Your task to perform on an android device: Search for vegetarian restaurants on Maps Image 0: 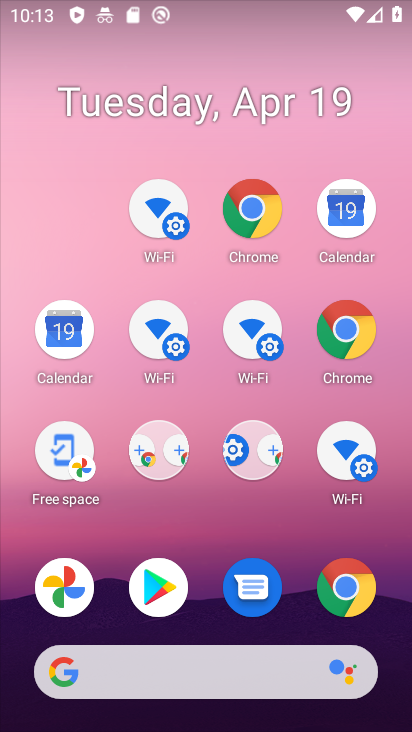
Step 0: drag from (259, 592) to (168, 133)
Your task to perform on an android device: Search for vegetarian restaurants on Maps Image 1: 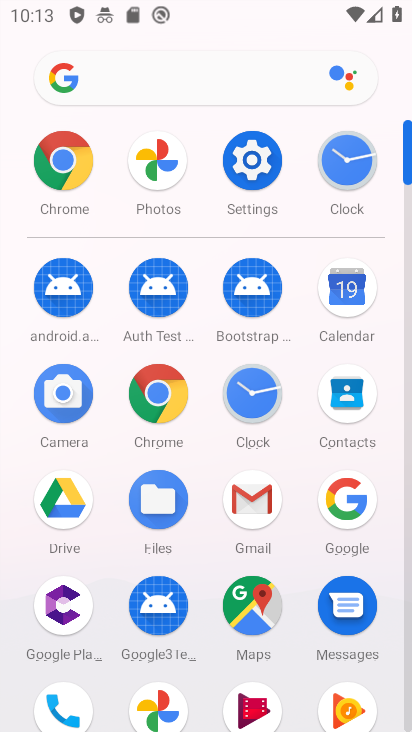
Step 1: click (262, 601)
Your task to perform on an android device: Search for vegetarian restaurants on Maps Image 2: 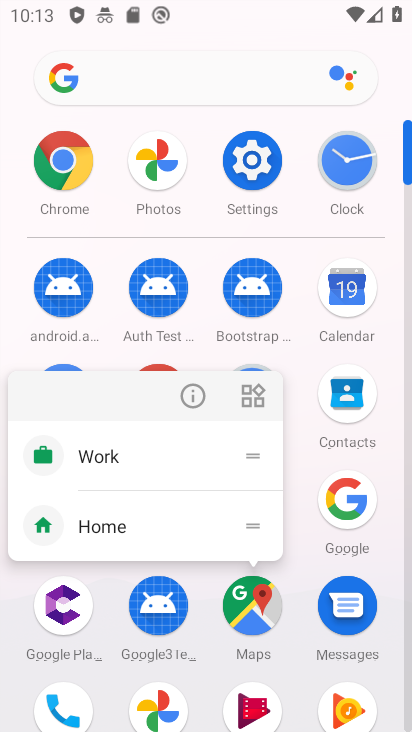
Step 2: click (265, 597)
Your task to perform on an android device: Search for vegetarian restaurants on Maps Image 3: 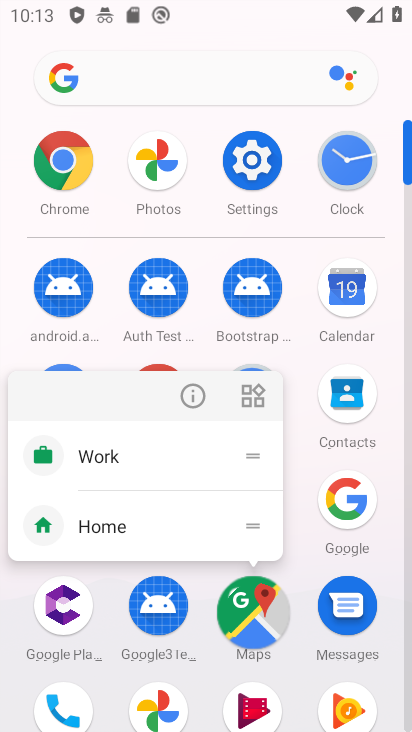
Step 3: click (266, 603)
Your task to perform on an android device: Search for vegetarian restaurants on Maps Image 4: 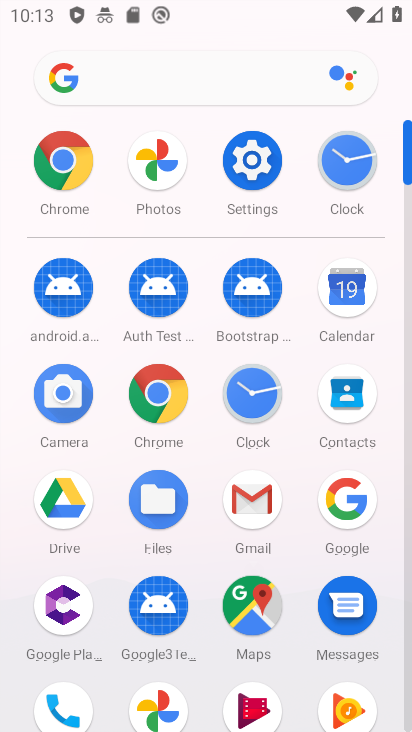
Step 4: click (269, 598)
Your task to perform on an android device: Search for vegetarian restaurants on Maps Image 5: 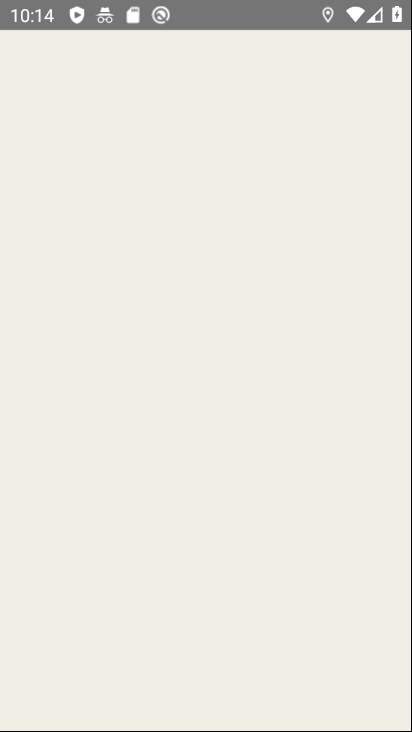
Step 5: click (270, 585)
Your task to perform on an android device: Search for vegetarian restaurants on Maps Image 6: 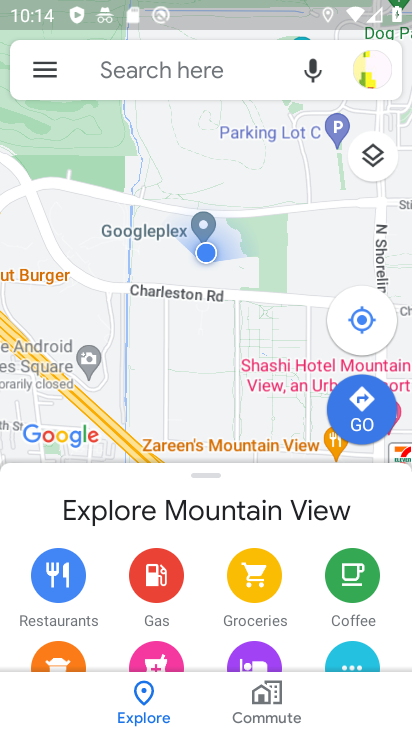
Step 6: click (114, 61)
Your task to perform on an android device: Search for vegetarian restaurants on Maps Image 7: 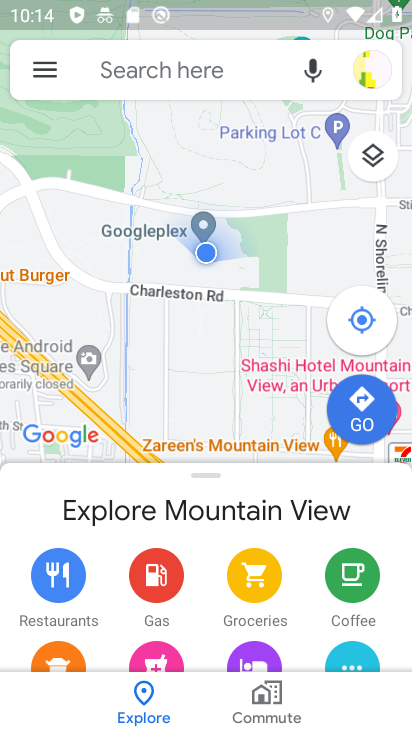
Step 7: click (114, 61)
Your task to perform on an android device: Search for vegetarian restaurants on Maps Image 8: 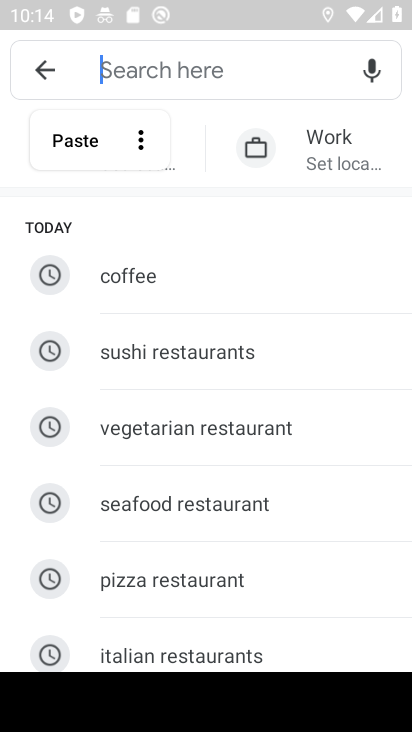
Step 8: drag from (183, 534) to (172, 224)
Your task to perform on an android device: Search for vegetarian restaurants on Maps Image 9: 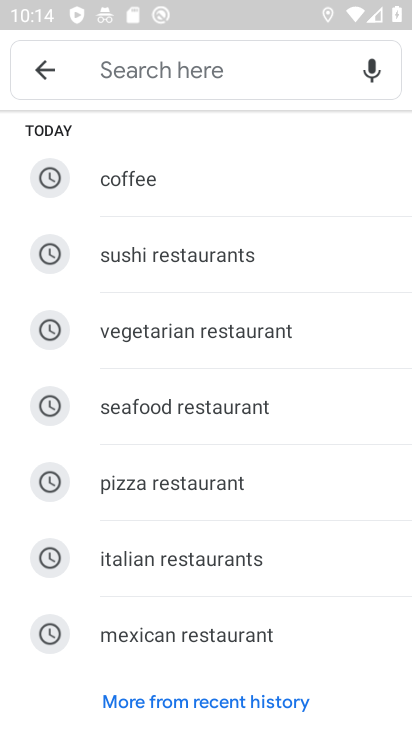
Step 9: click (108, 70)
Your task to perform on an android device: Search for vegetarian restaurants on Maps Image 10: 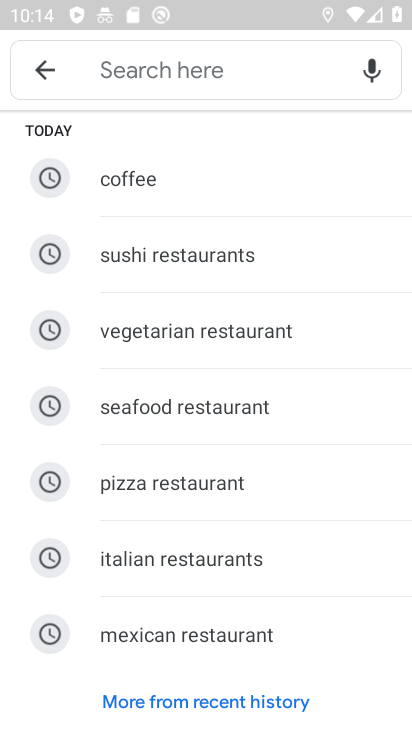
Step 10: click (108, 70)
Your task to perform on an android device: Search for vegetarian restaurants on Maps Image 11: 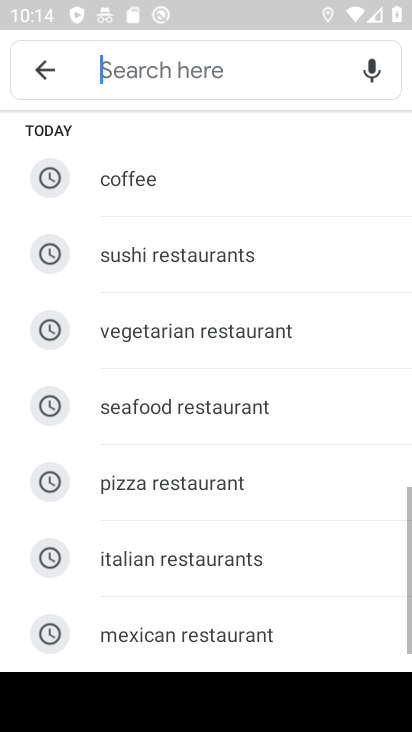
Step 11: click (108, 70)
Your task to perform on an android device: Search for vegetarian restaurants on Maps Image 12: 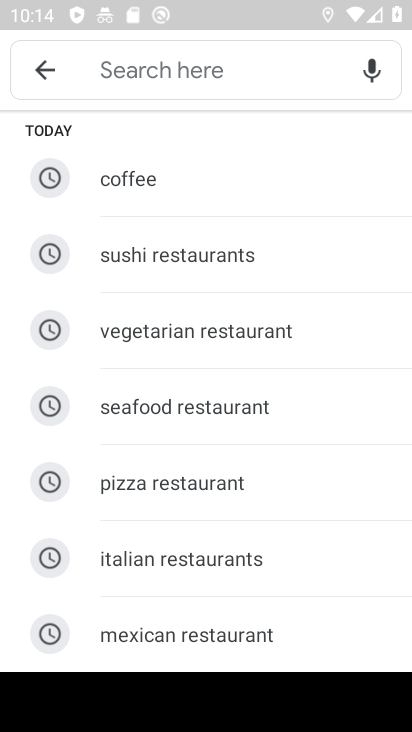
Step 12: type "vegetarian restaurants"
Your task to perform on an android device: Search for vegetarian restaurants on Maps Image 13: 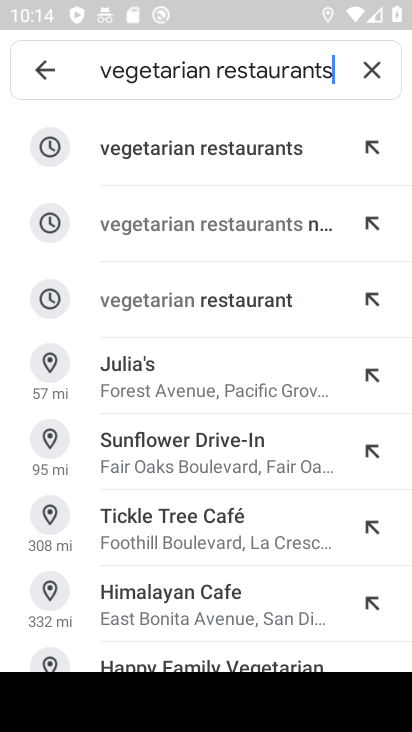
Step 13: click (389, 157)
Your task to perform on an android device: Search for vegetarian restaurants on Maps Image 14: 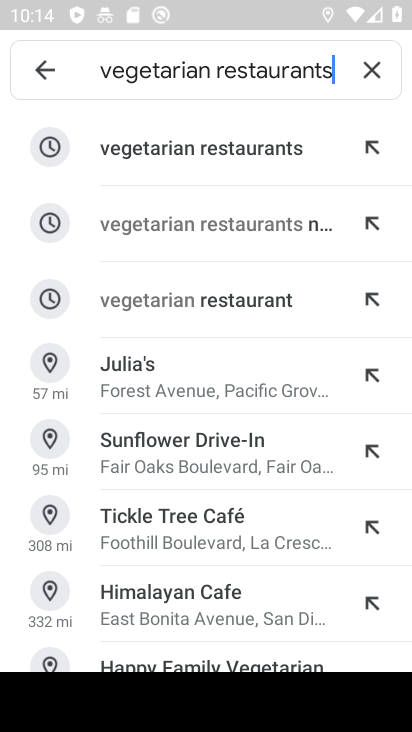
Step 14: click (352, 143)
Your task to perform on an android device: Search for vegetarian restaurants on Maps Image 15: 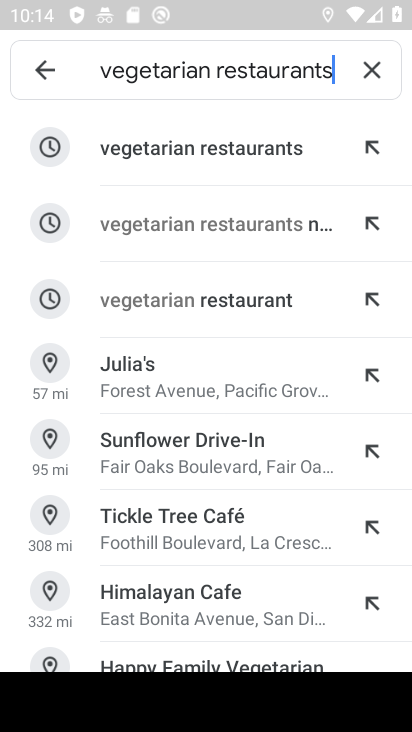
Step 15: click (280, 156)
Your task to perform on an android device: Search for vegetarian restaurants on Maps Image 16: 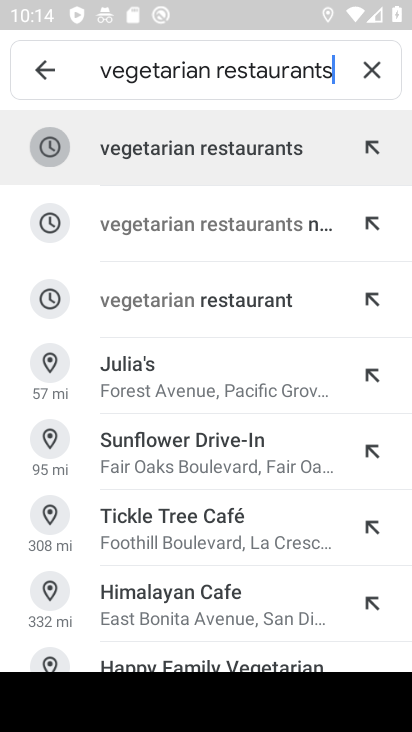
Step 16: click (270, 147)
Your task to perform on an android device: Search for vegetarian restaurants on Maps Image 17: 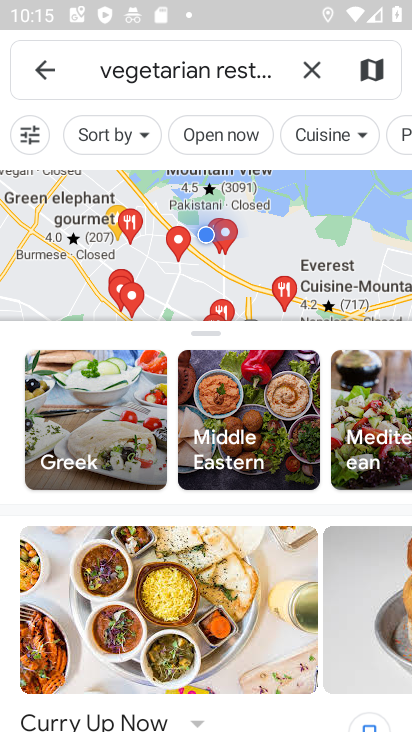
Step 17: task complete